Your task to perform on an android device: What is the recent news? Image 0: 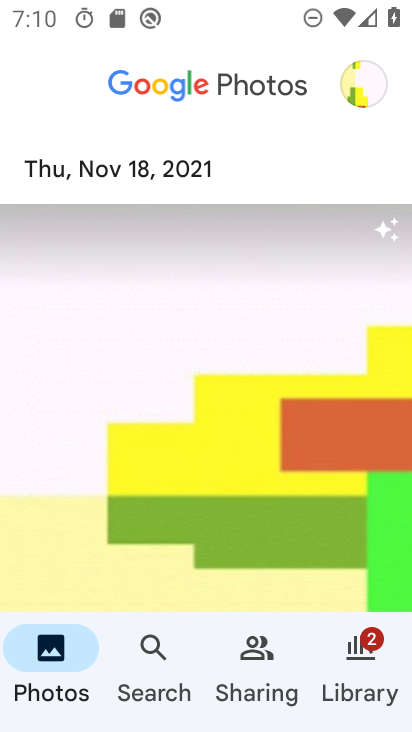
Step 0: press home button
Your task to perform on an android device: What is the recent news? Image 1: 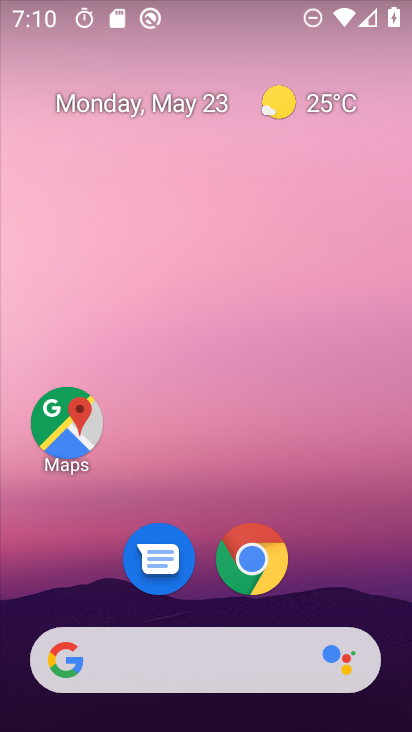
Step 1: drag from (383, 655) to (300, 51)
Your task to perform on an android device: What is the recent news? Image 2: 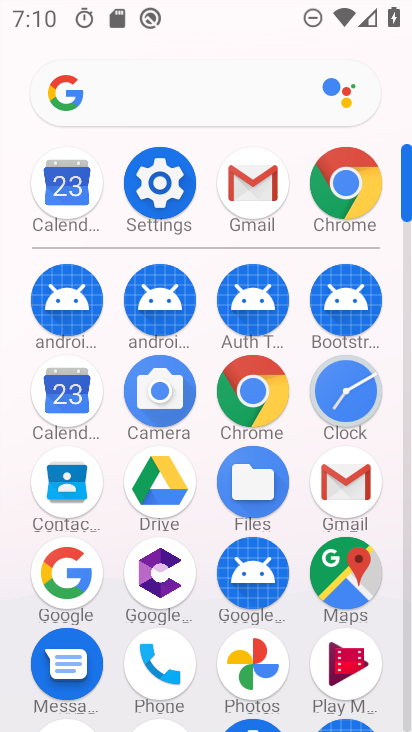
Step 2: click (73, 565)
Your task to perform on an android device: What is the recent news? Image 3: 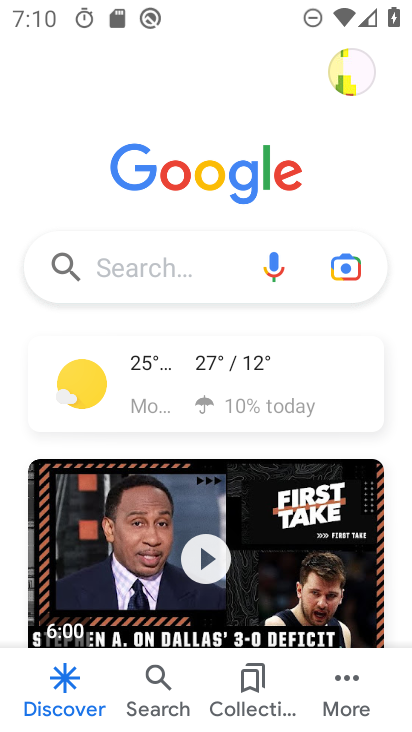
Step 3: click (147, 259)
Your task to perform on an android device: What is the recent news? Image 4: 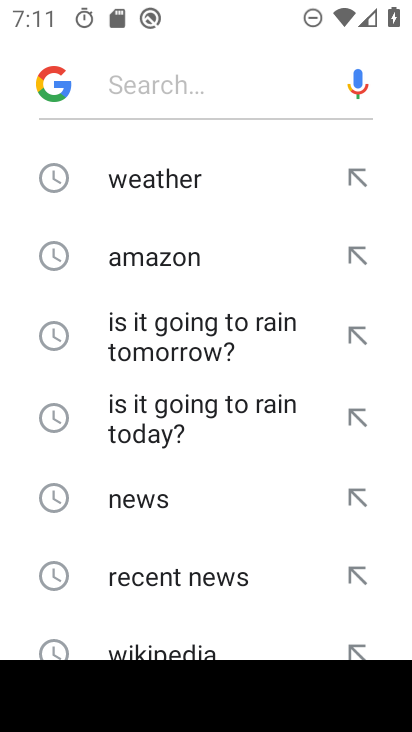
Step 4: click (160, 575)
Your task to perform on an android device: What is the recent news? Image 5: 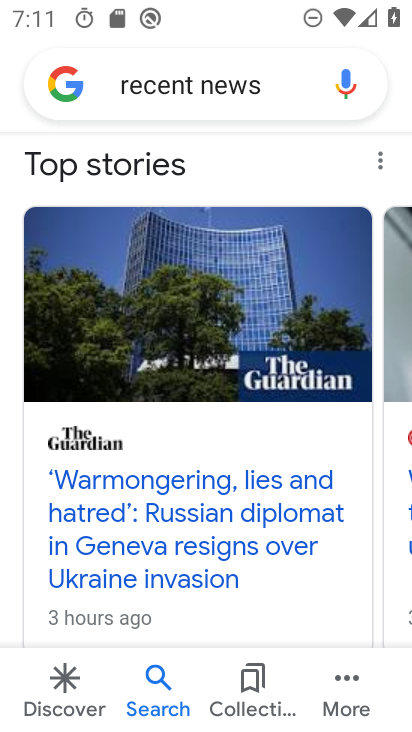
Step 5: task complete